Your task to perform on an android device: Go to notification settings Image 0: 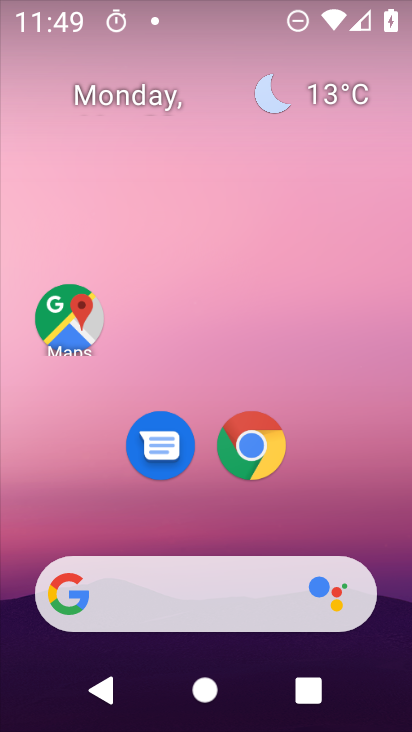
Step 0: drag from (234, 534) to (232, 47)
Your task to perform on an android device: Go to notification settings Image 1: 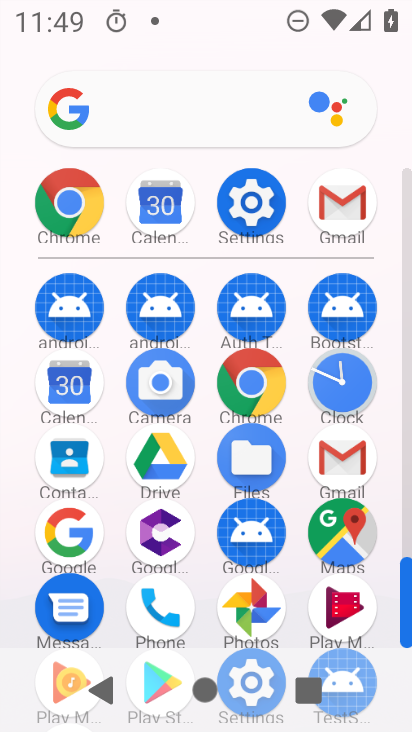
Step 1: click (254, 199)
Your task to perform on an android device: Go to notification settings Image 2: 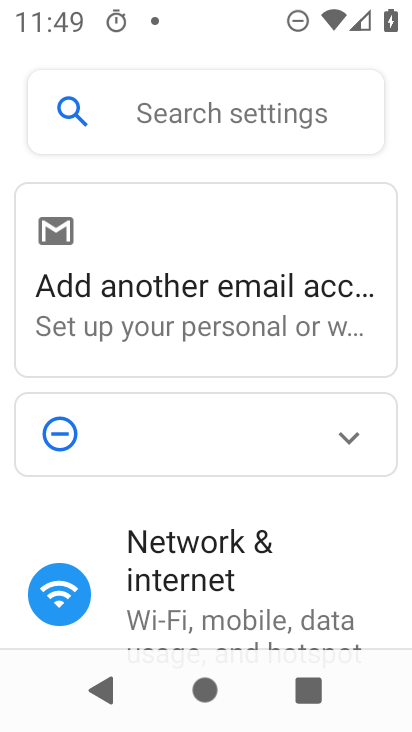
Step 2: drag from (202, 591) to (273, 130)
Your task to perform on an android device: Go to notification settings Image 3: 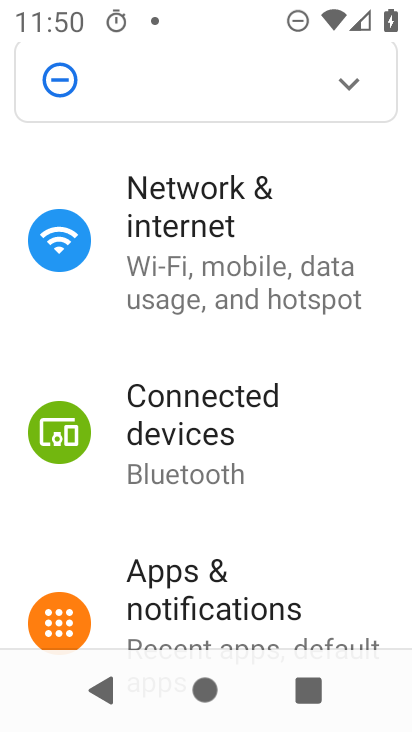
Step 3: click (190, 603)
Your task to perform on an android device: Go to notification settings Image 4: 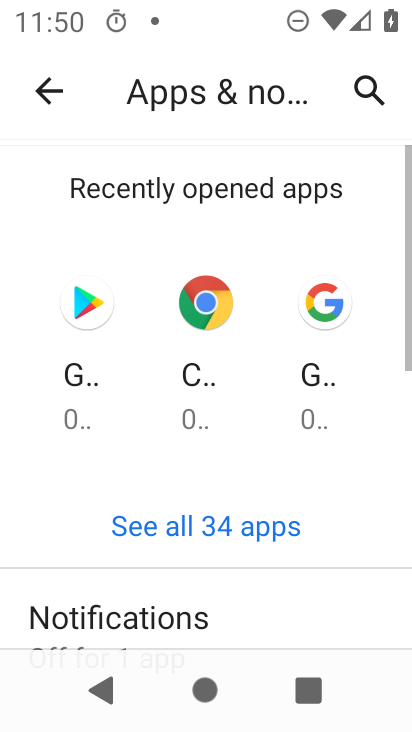
Step 4: drag from (165, 595) to (289, 140)
Your task to perform on an android device: Go to notification settings Image 5: 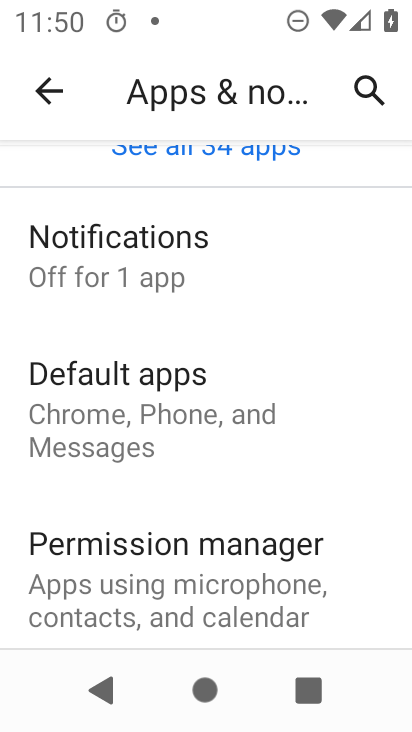
Step 5: click (215, 244)
Your task to perform on an android device: Go to notification settings Image 6: 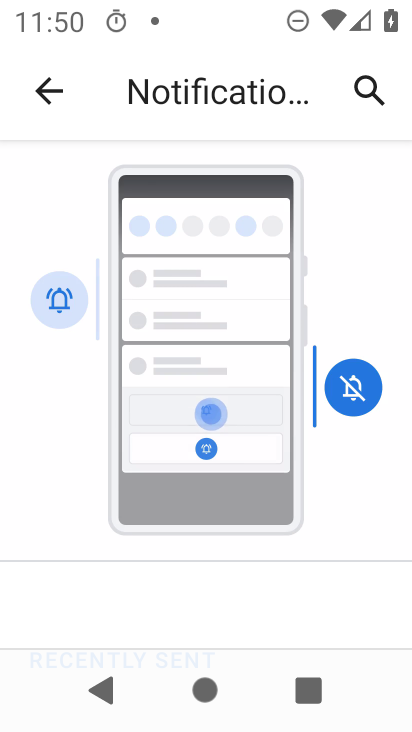
Step 6: task complete